Your task to perform on an android device: Show me the best rated vacuum on Walmart. Image 0: 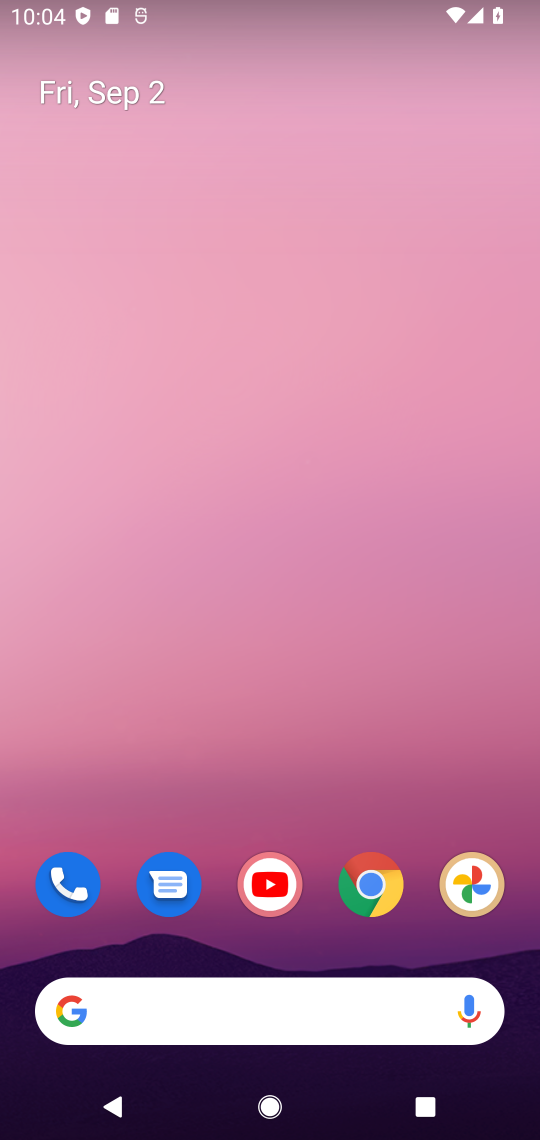
Step 0: drag from (282, 931) to (315, 113)
Your task to perform on an android device: Show me the best rated vacuum on Walmart. Image 1: 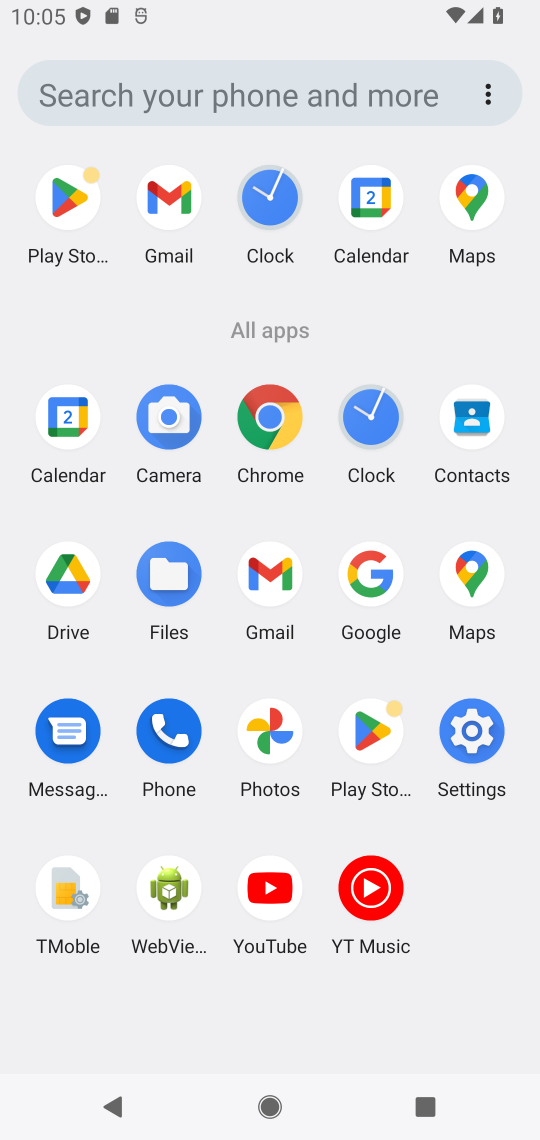
Step 1: click (277, 445)
Your task to perform on an android device: Show me the best rated vacuum on Walmart. Image 2: 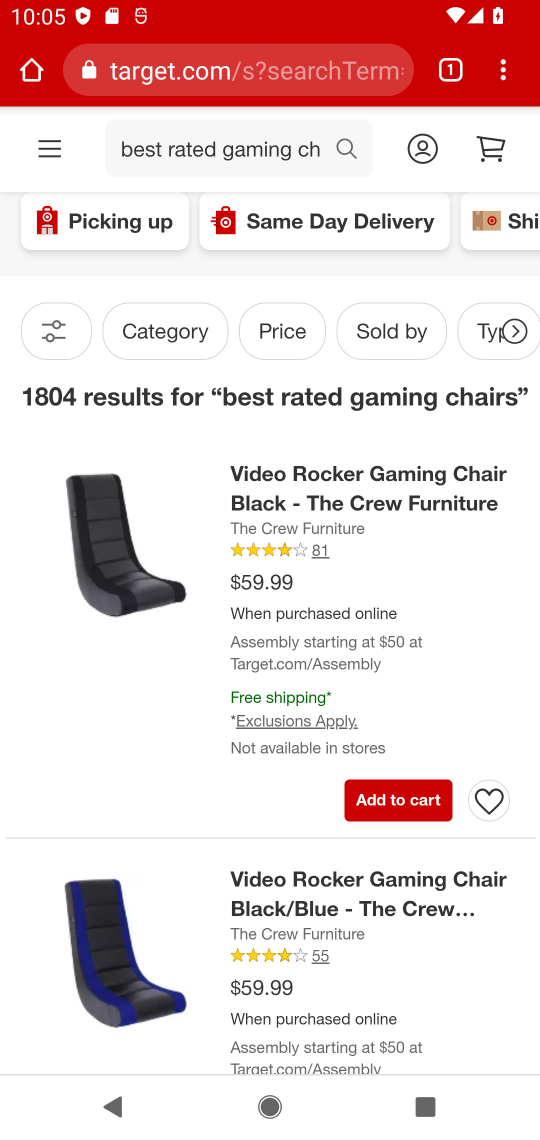
Step 2: click (369, 88)
Your task to perform on an android device: Show me the best rated vacuum on Walmart. Image 3: 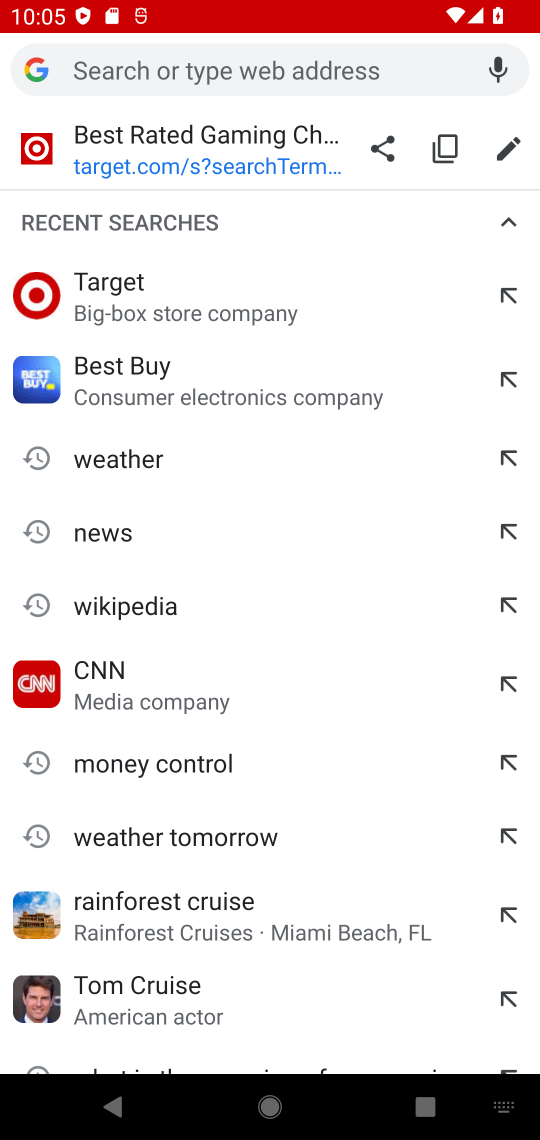
Step 3: type "walmart"
Your task to perform on an android device: Show me the best rated vacuum on Walmart. Image 4: 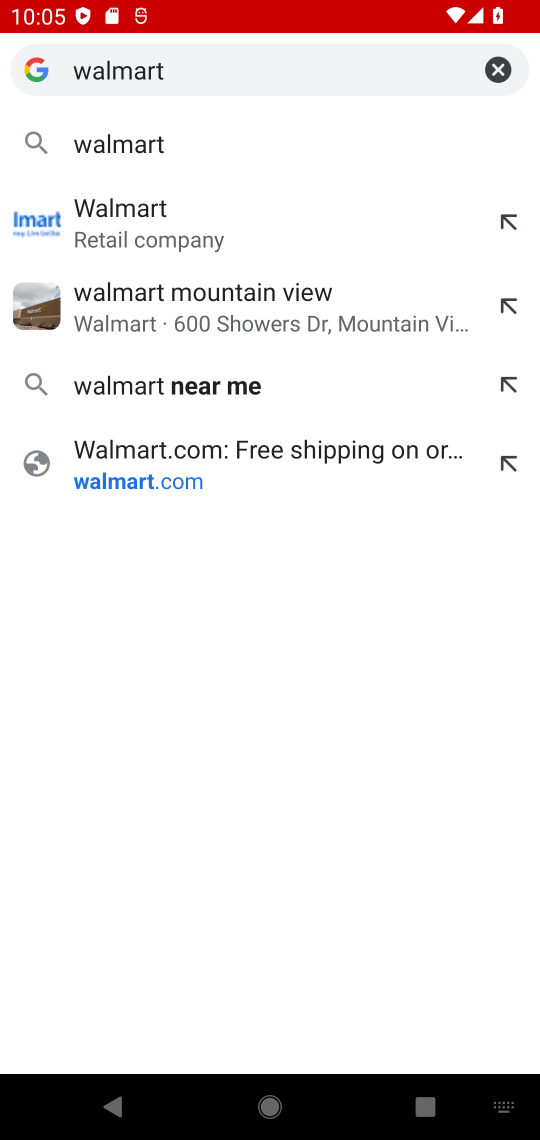
Step 4: click (253, 231)
Your task to perform on an android device: Show me the best rated vacuum on Walmart. Image 5: 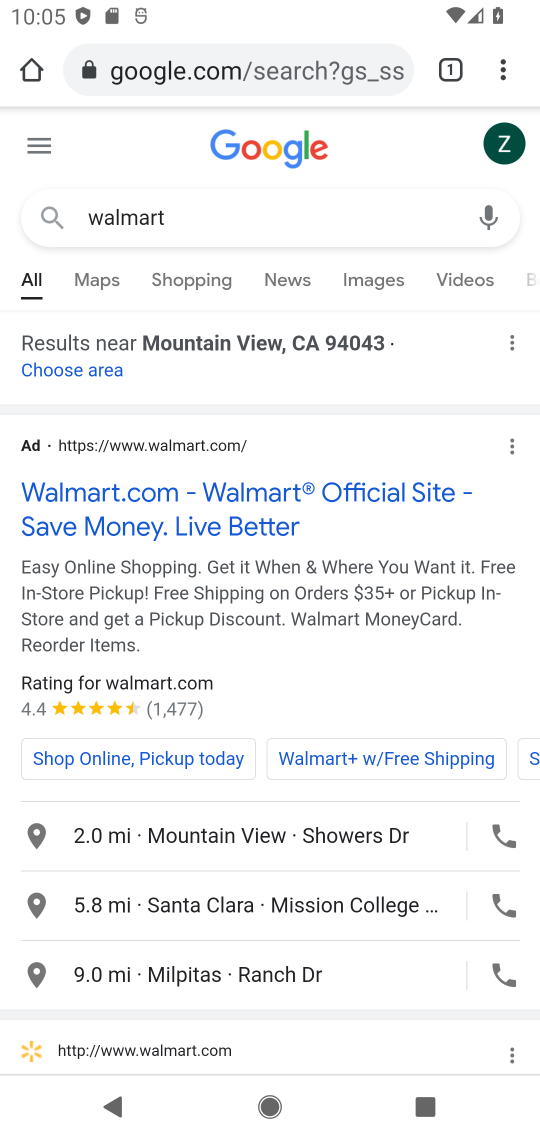
Step 5: drag from (239, 823) to (276, 425)
Your task to perform on an android device: Show me the best rated vacuum on Walmart. Image 6: 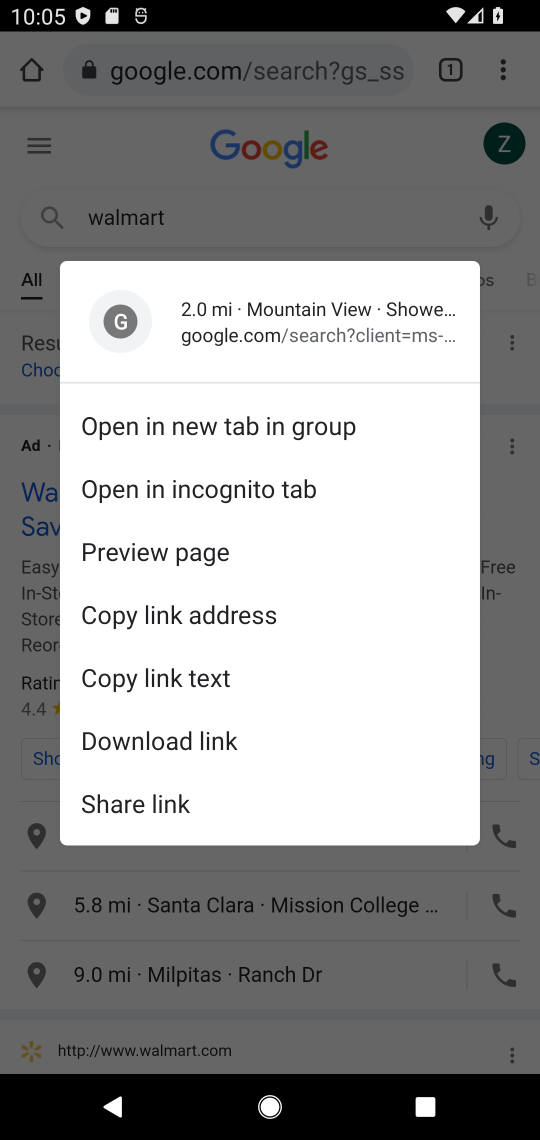
Step 6: click (523, 516)
Your task to perform on an android device: Show me the best rated vacuum on Walmart. Image 7: 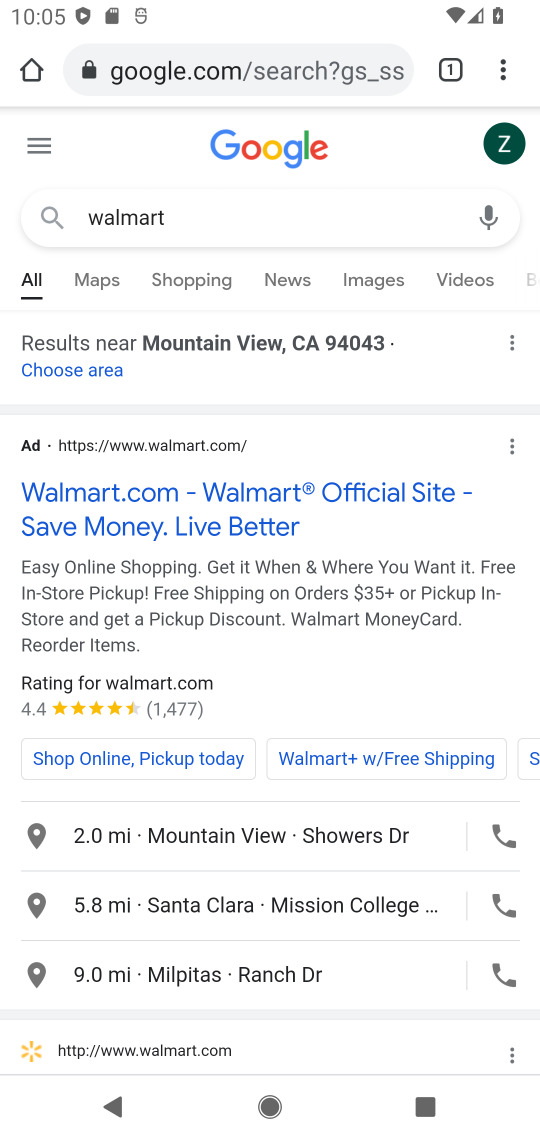
Step 7: drag from (328, 636) to (370, 428)
Your task to perform on an android device: Show me the best rated vacuum on Walmart. Image 8: 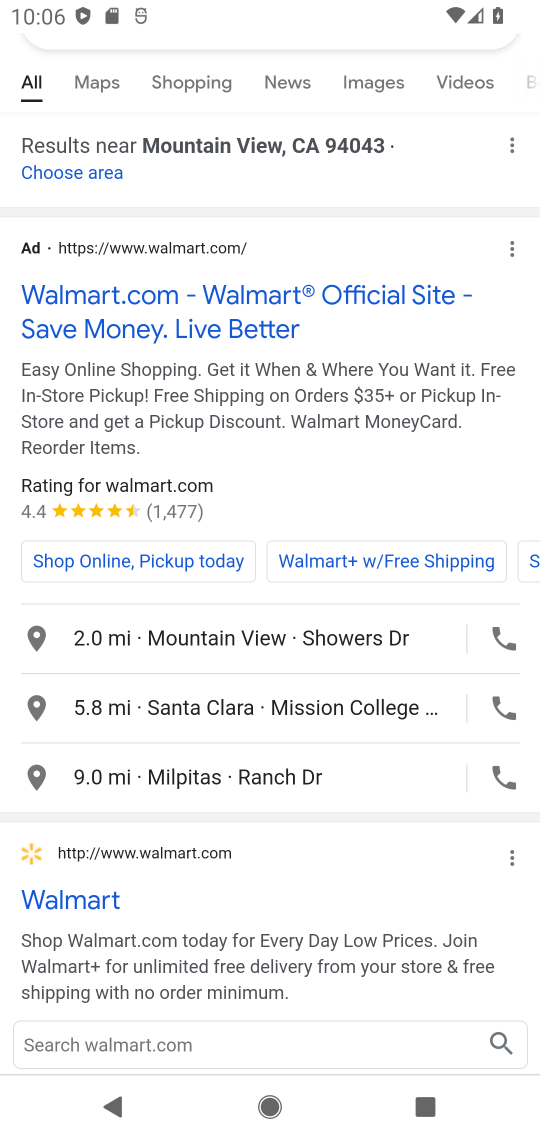
Step 8: click (92, 890)
Your task to perform on an android device: Show me the best rated vacuum on Walmart. Image 9: 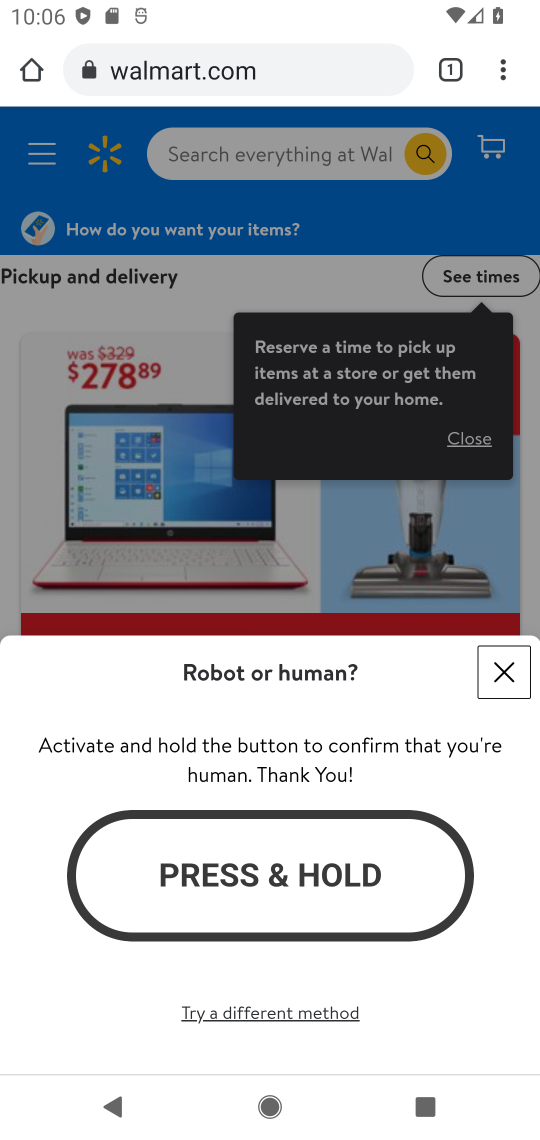
Step 9: click (503, 661)
Your task to perform on an android device: Show me the best rated vacuum on Walmart. Image 10: 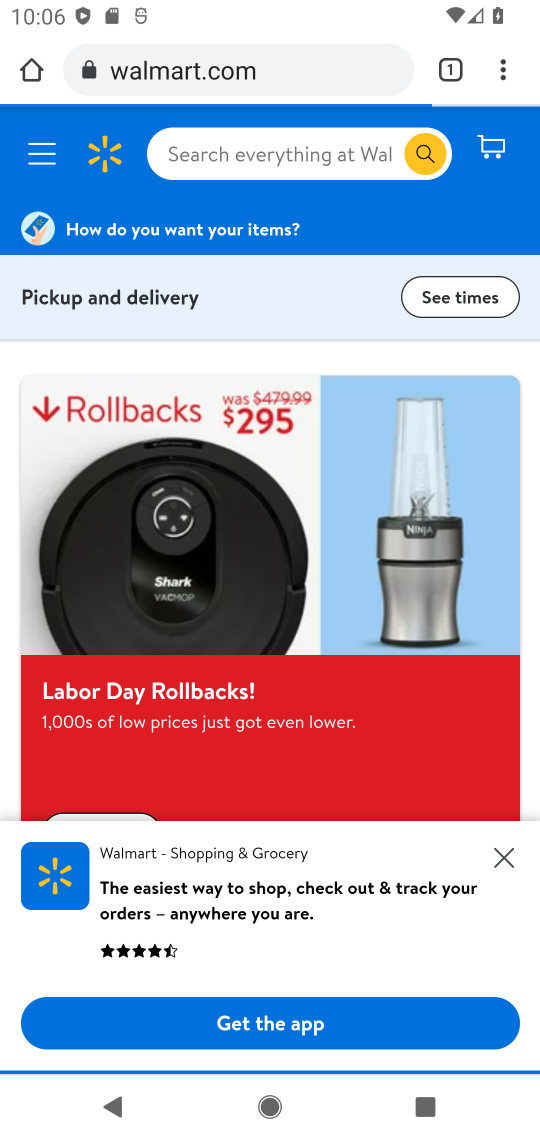
Step 10: click (328, 154)
Your task to perform on an android device: Show me the best rated vacuum on Walmart. Image 11: 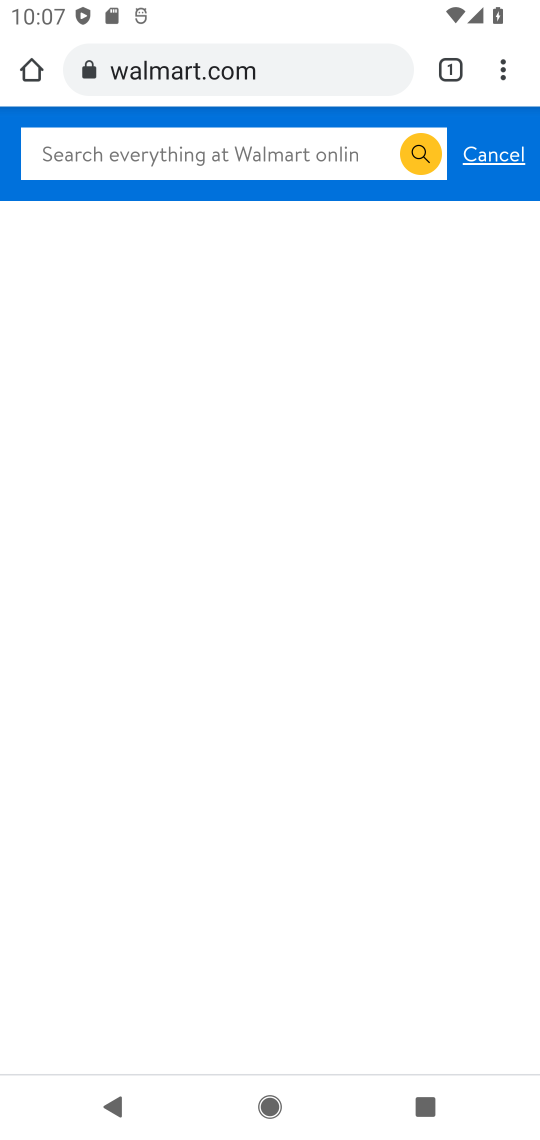
Step 11: type "best rated vacuume"
Your task to perform on an android device: Show me the best rated vacuum on Walmart. Image 12: 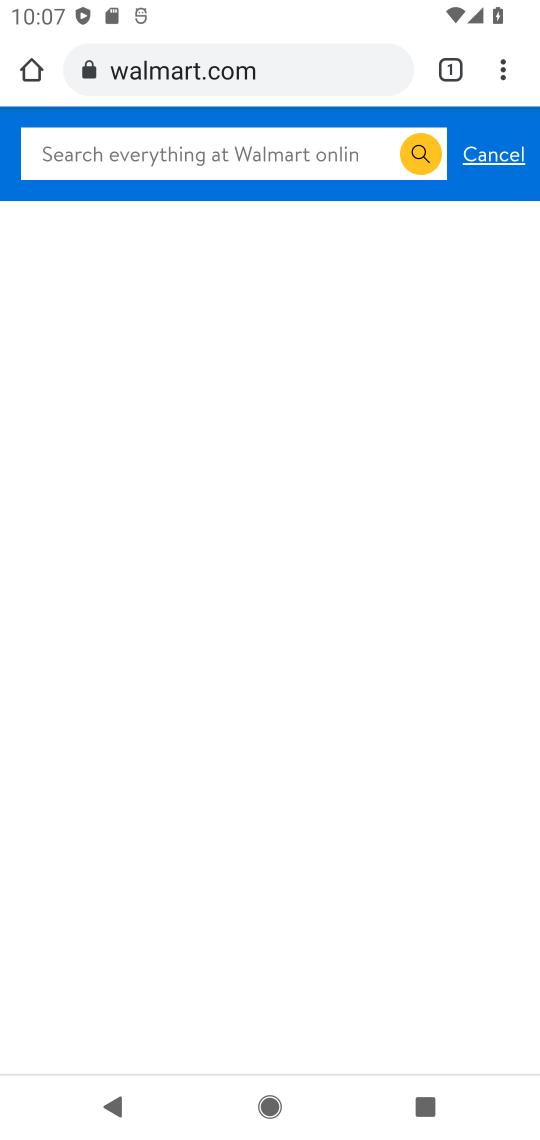
Step 12: click (176, 163)
Your task to perform on an android device: Show me the best rated vacuum on Walmart. Image 13: 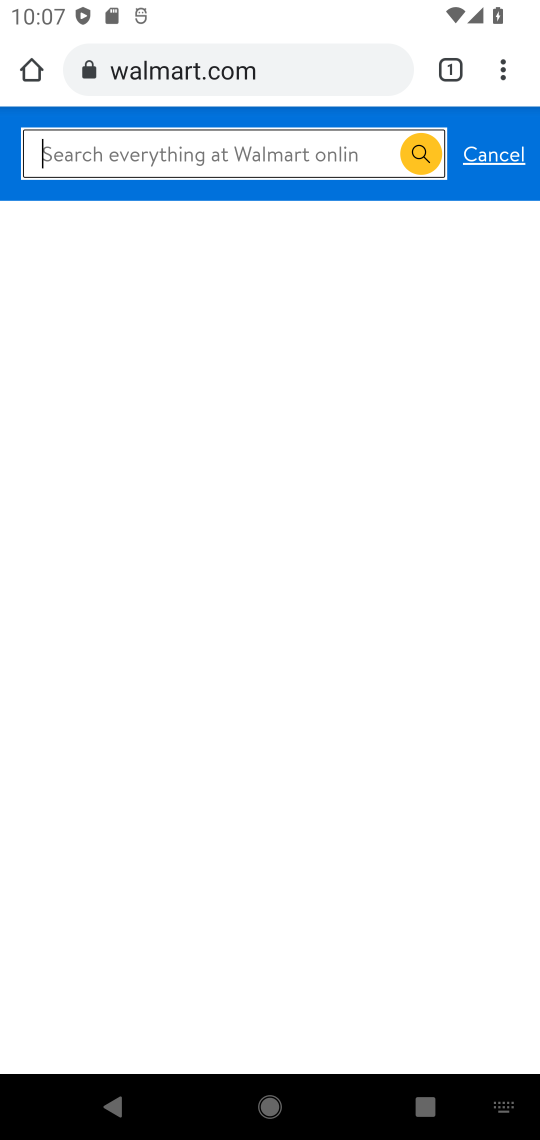
Step 13: type "best rated vacuum"
Your task to perform on an android device: Show me the best rated vacuum on Walmart. Image 14: 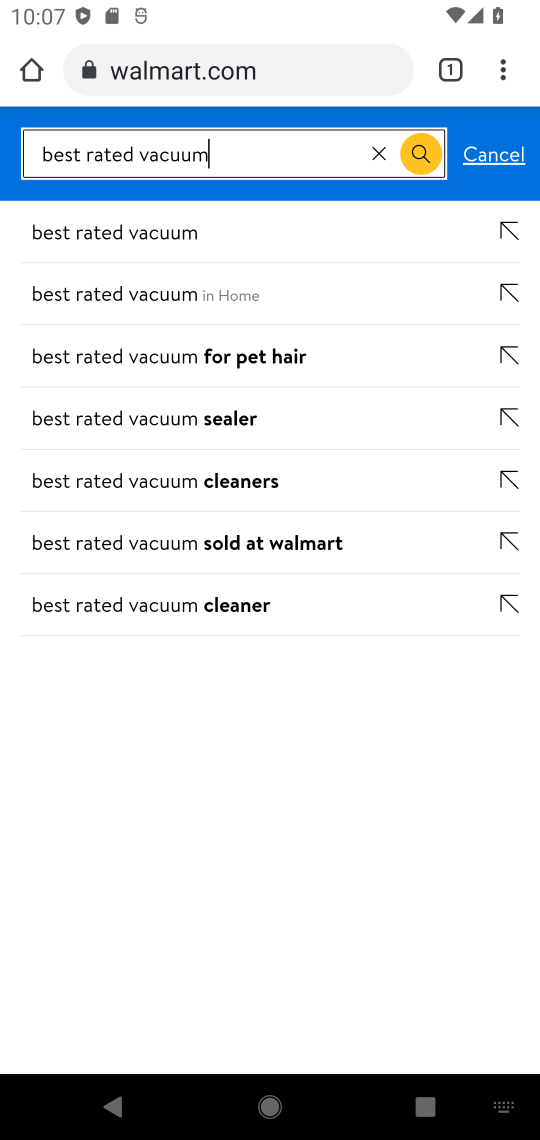
Step 14: click (287, 235)
Your task to perform on an android device: Show me the best rated vacuum on Walmart. Image 15: 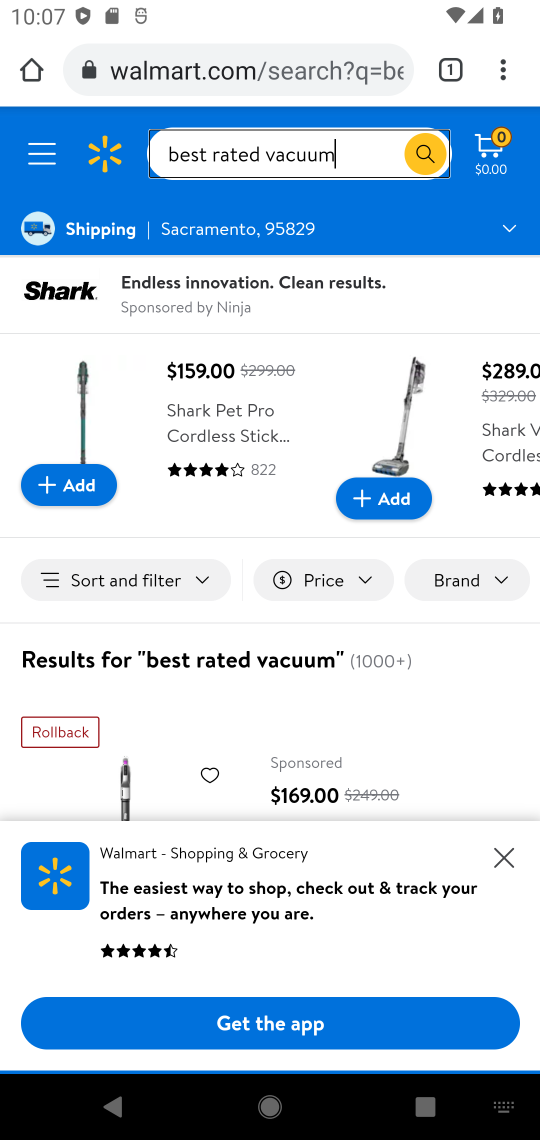
Step 15: task complete